Your task to perform on an android device: read, delete, or share a saved page in the chrome app Image 0: 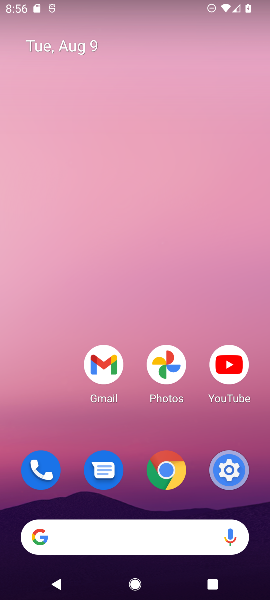
Step 0: click (165, 472)
Your task to perform on an android device: read, delete, or share a saved page in the chrome app Image 1: 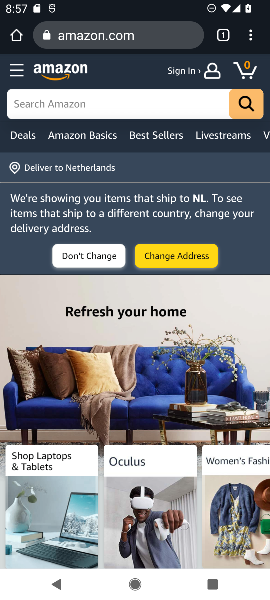
Step 1: click (253, 35)
Your task to perform on an android device: read, delete, or share a saved page in the chrome app Image 2: 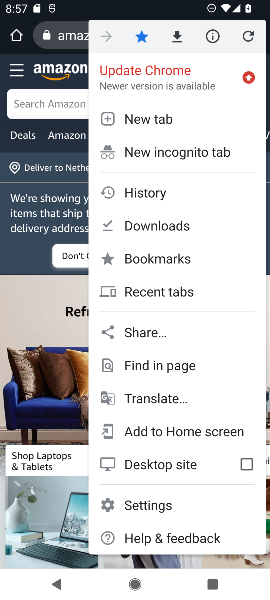
Step 2: click (148, 223)
Your task to perform on an android device: read, delete, or share a saved page in the chrome app Image 3: 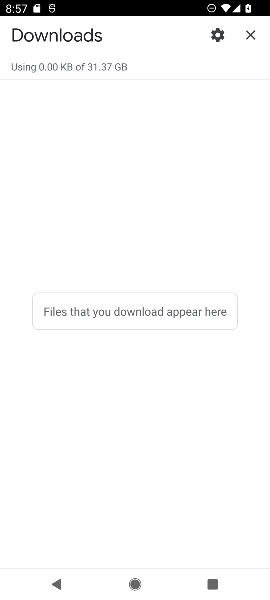
Step 3: task complete